Your task to perform on an android device: Go to eBay Image 0: 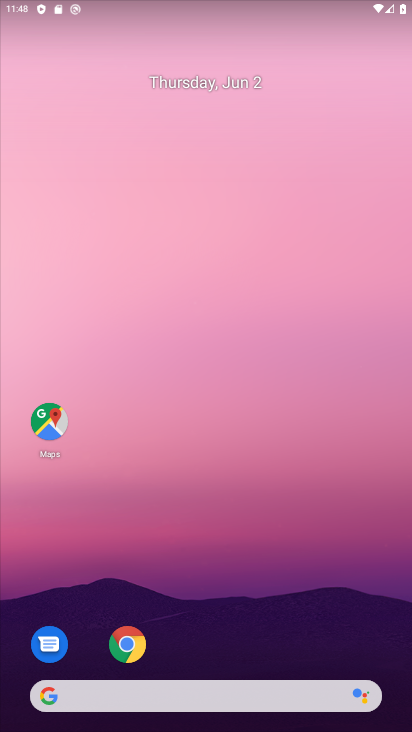
Step 0: click (123, 646)
Your task to perform on an android device: Go to eBay Image 1: 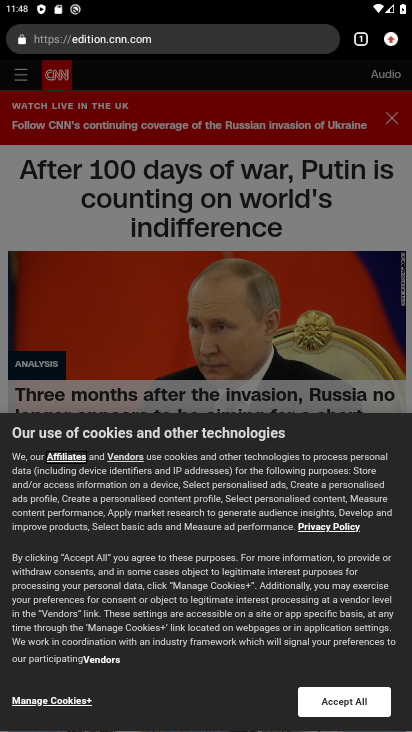
Step 1: click (395, 44)
Your task to perform on an android device: Go to eBay Image 2: 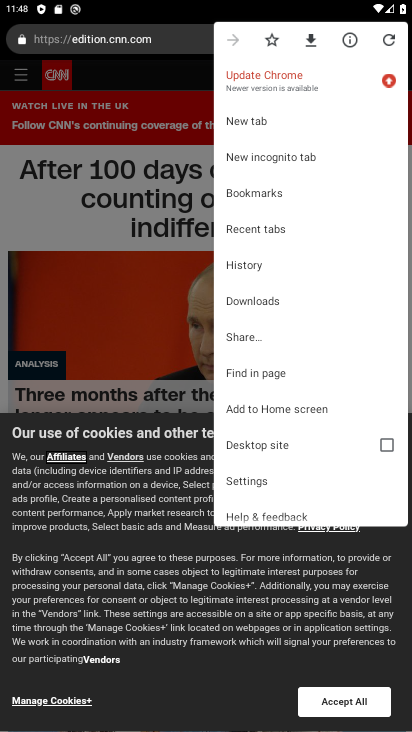
Step 2: click (261, 122)
Your task to perform on an android device: Go to eBay Image 3: 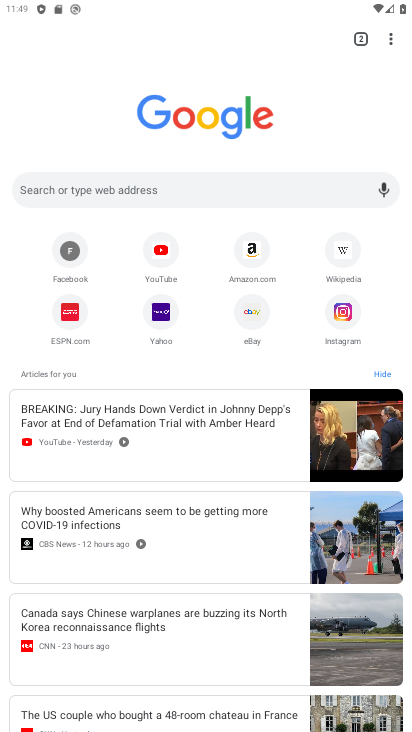
Step 3: click (261, 312)
Your task to perform on an android device: Go to eBay Image 4: 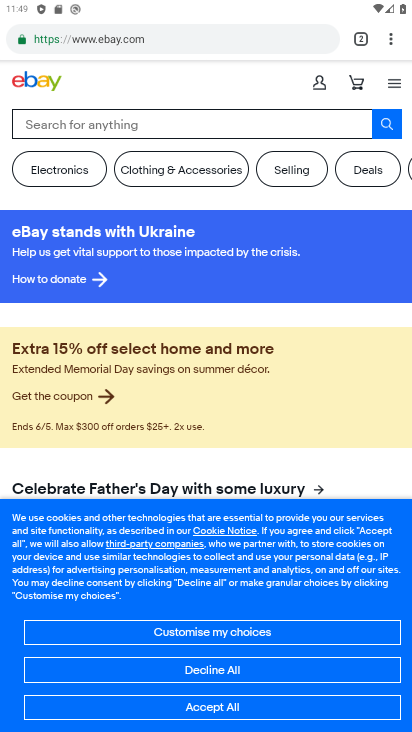
Step 4: task complete